Your task to perform on an android device: open device folders in google photos Image 0: 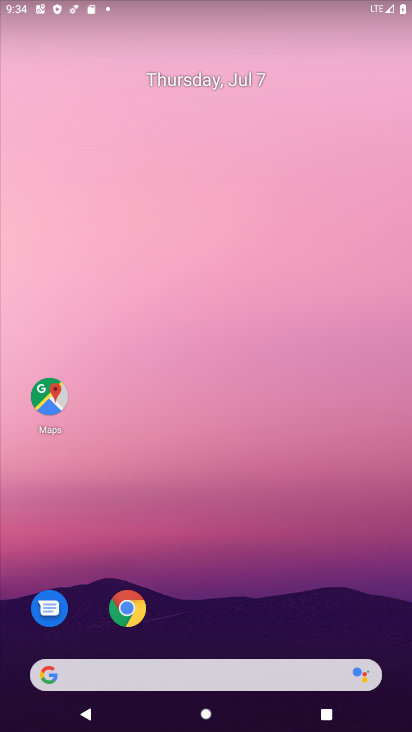
Step 0: drag from (230, 635) to (241, 237)
Your task to perform on an android device: open device folders in google photos Image 1: 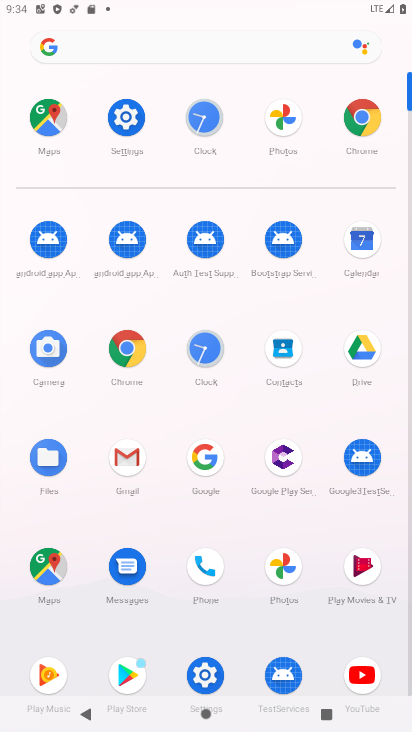
Step 1: click (282, 562)
Your task to perform on an android device: open device folders in google photos Image 2: 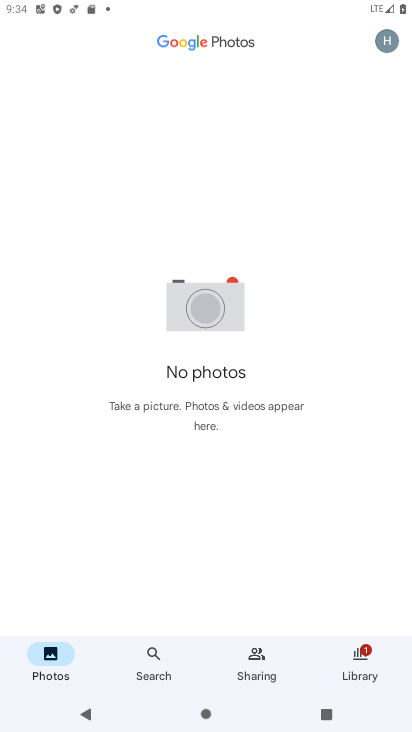
Step 2: click (361, 665)
Your task to perform on an android device: open device folders in google photos Image 3: 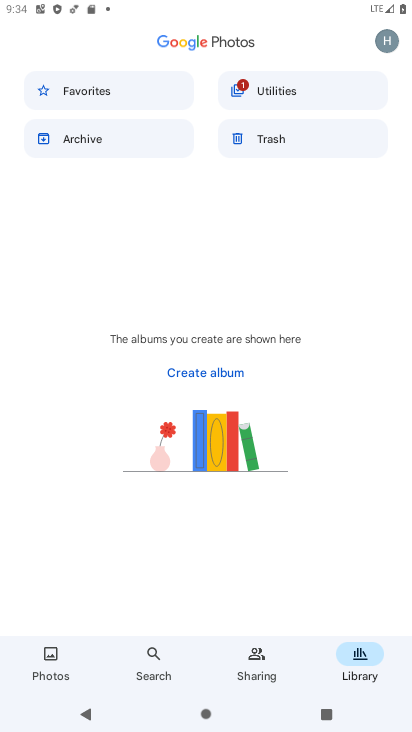
Step 3: click (381, 35)
Your task to perform on an android device: open device folders in google photos Image 4: 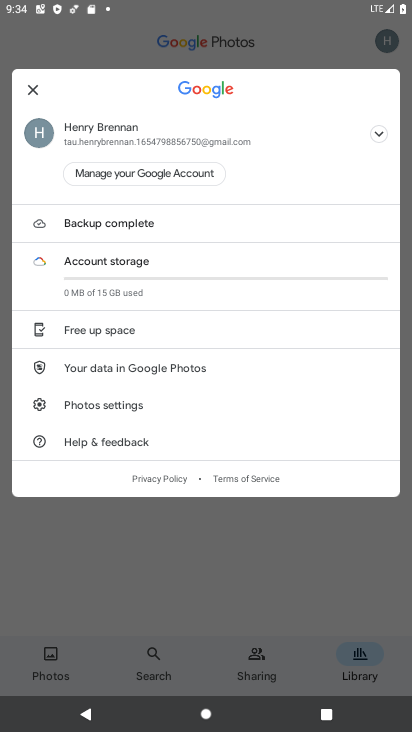
Step 4: task complete